Your task to perform on an android device: Open Reddit.com Image 0: 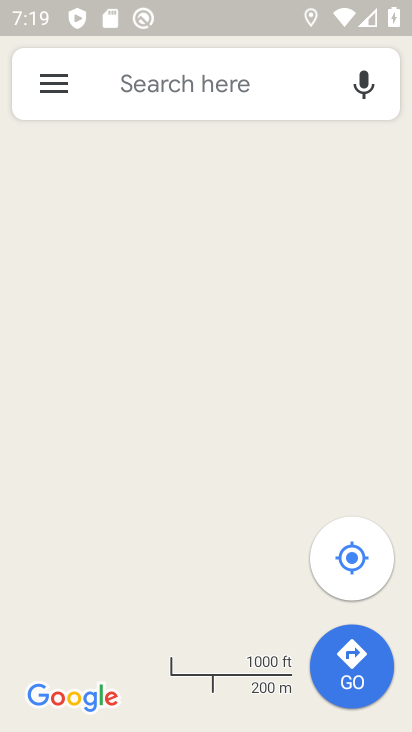
Step 0: press home button
Your task to perform on an android device: Open Reddit.com Image 1: 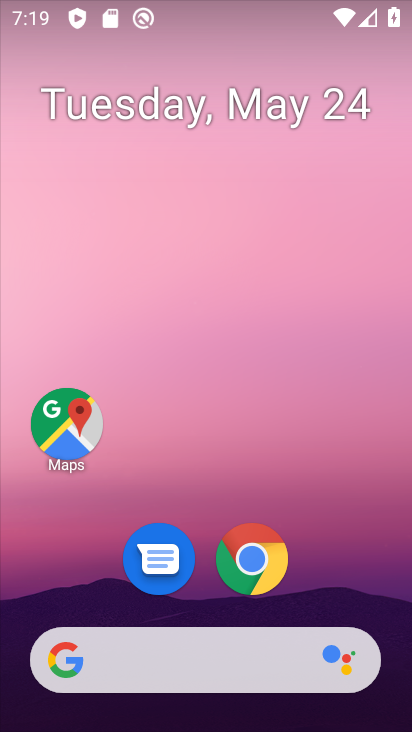
Step 1: click (236, 563)
Your task to perform on an android device: Open Reddit.com Image 2: 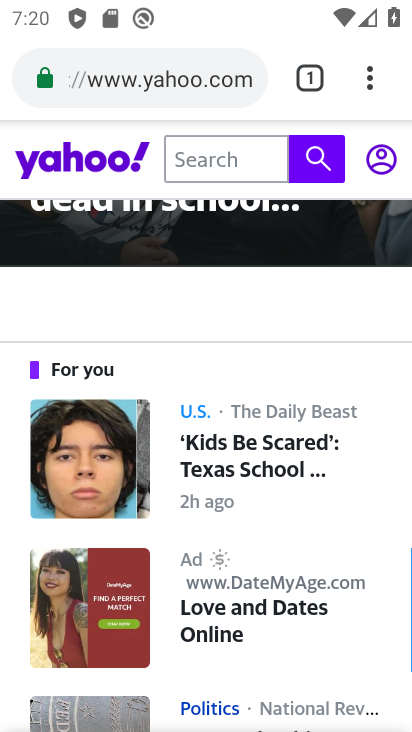
Step 2: drag from (367, 80) to (245, 160)
Your task to perform on an android device: Open Reddit.com Image 3: 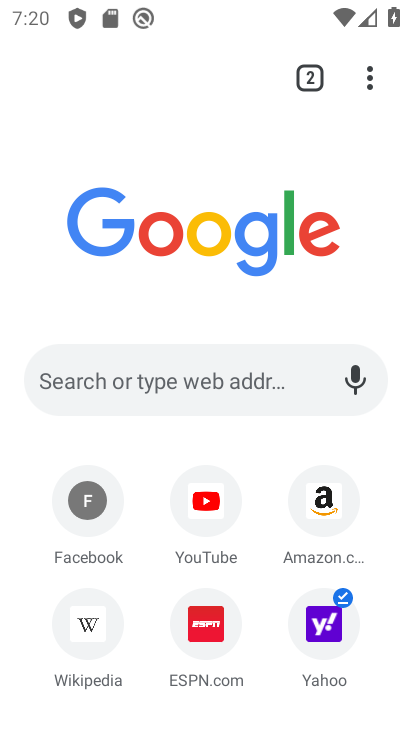
Step 3: click (189, 380)
Your task to perform on an android device: Open Reddit.com Image 4: 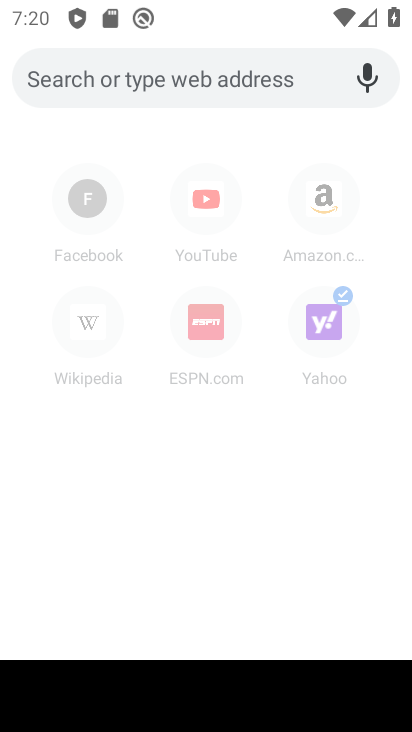
Step 4: type "reddit.com"
Your task to perform on an android device: Open Reddit.com Image 5: 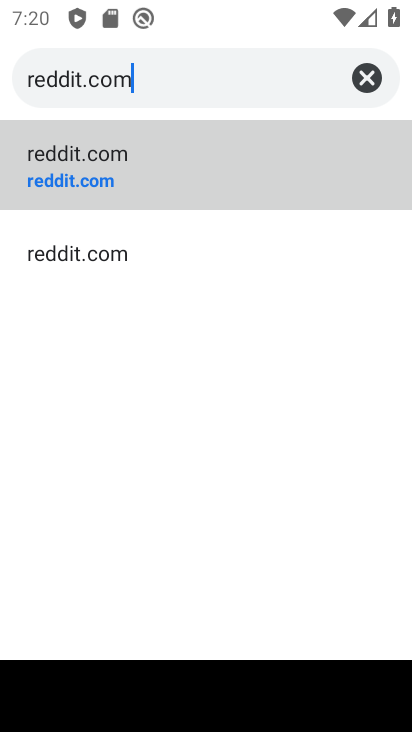
Step 5: click (145, 188)
Your task to perform on an android device: Open Reddit.com Image 6: 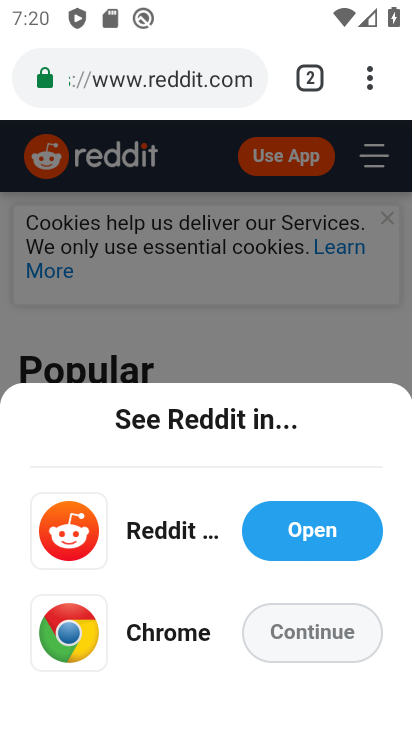
Step 6: task complete